Your task to perform on an android device: change the upload size in google photos Image 0: 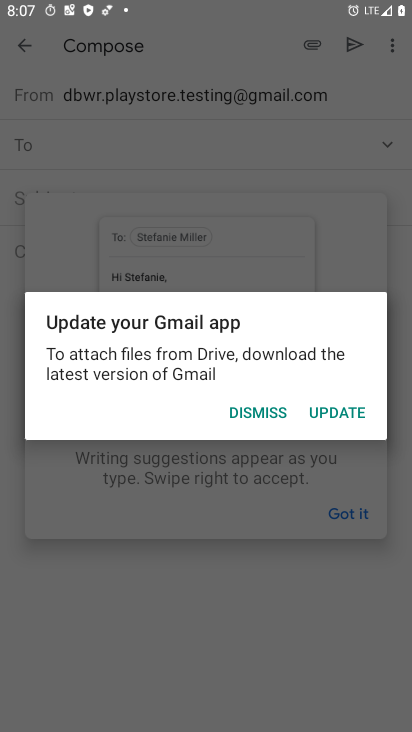
Step 0: click (280, 406)
Your task to perform on an android device: change the upload size in google photos Image 1: 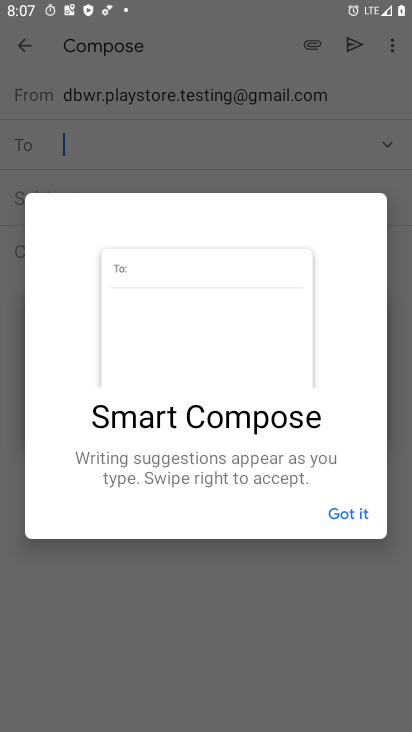
Step 1: press home button
Your task to perform on an android device: change the upload size in google photos Image 2: 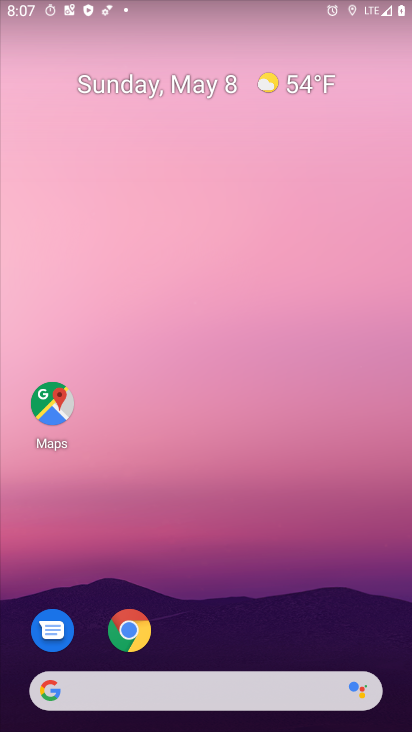
Step 2: drag from (239, 655) to (216, 39)
Your task to perform on an android device: change the upload size in google photos Image 3: 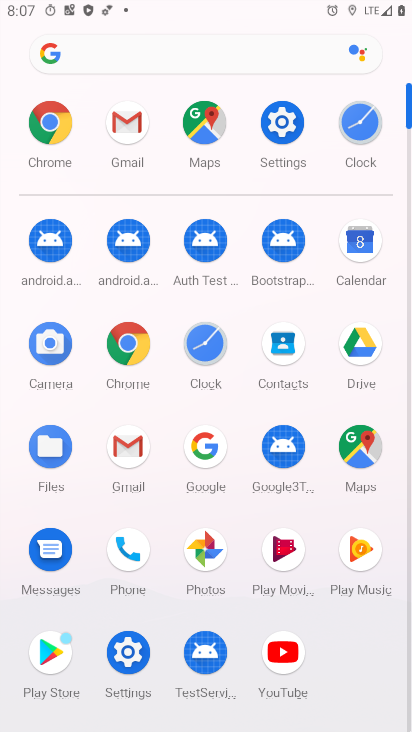
Step 3: click (190, 552)
Your task to perform on an android device: change the upload size in google photos Image 4: 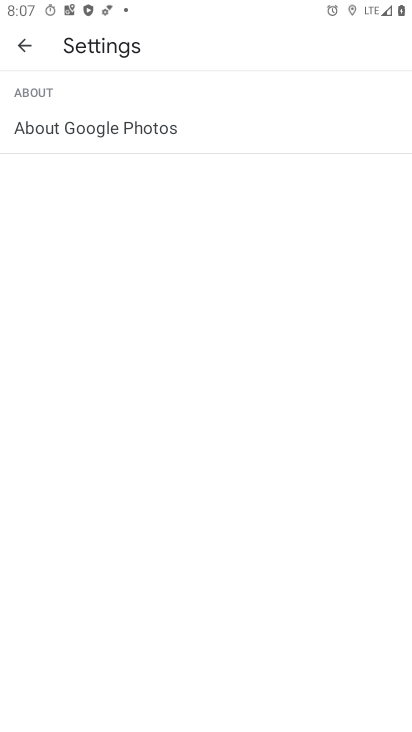
Step 4: click (27, 46)
Your task to perform on an android device: change the upload size in google photos Image 5: 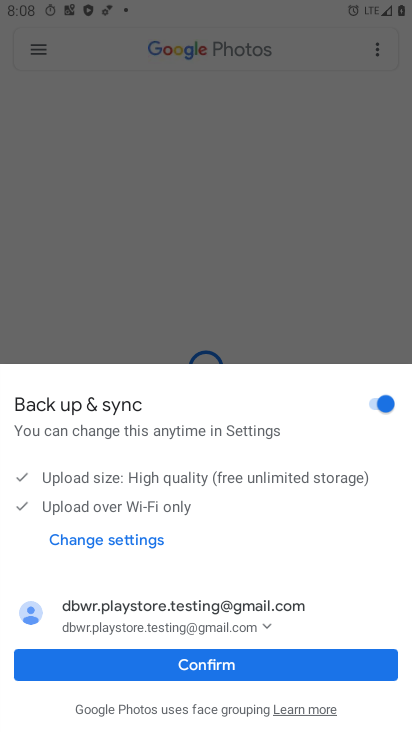
Step 5: click (233, 661)
Your task to perform on an android device: change the upload size in google photos Image 6: 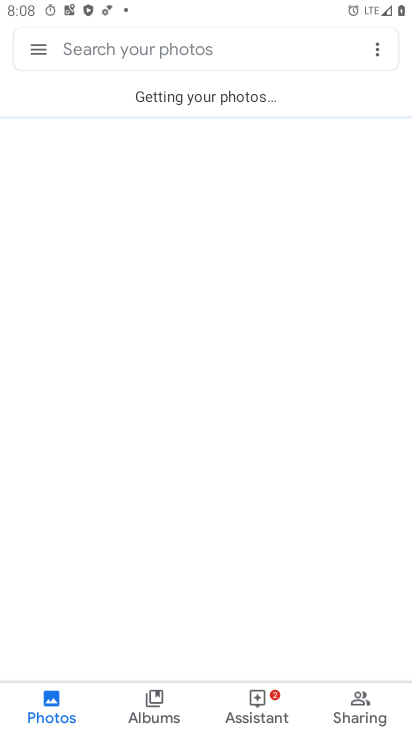
Step 6: click (39, 52)
Your task to perform on an android device: change the upload size in google photos Image 7: 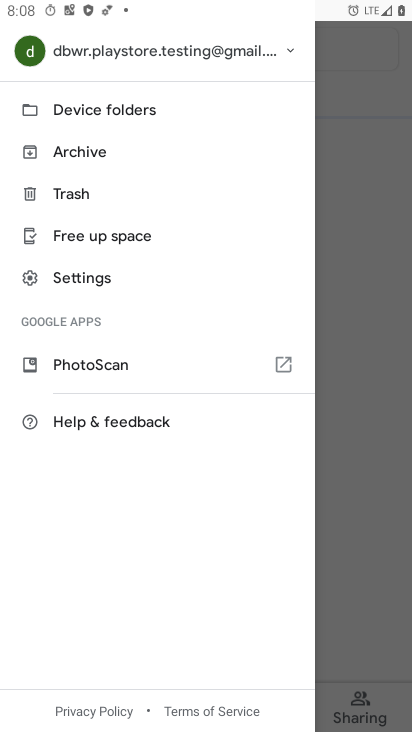
Step 7: click (78, 285)
Your task to perform on an android device: change the upload size in google photos Image 8: 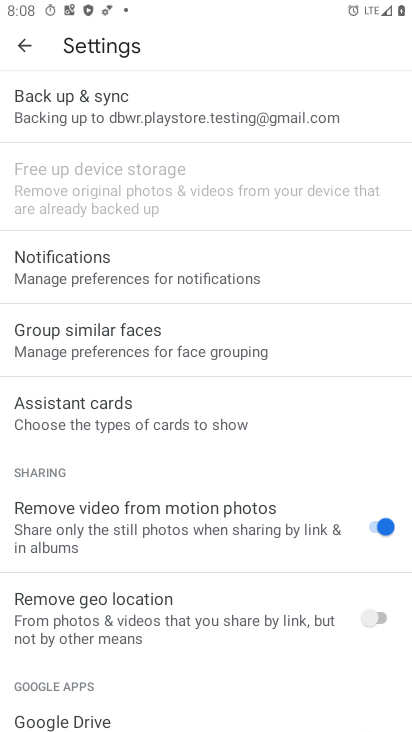
Step 8: drag from (124, 497) to (86, 247)
Your task to perform on an android device: change the upload size in google photos Image 9: 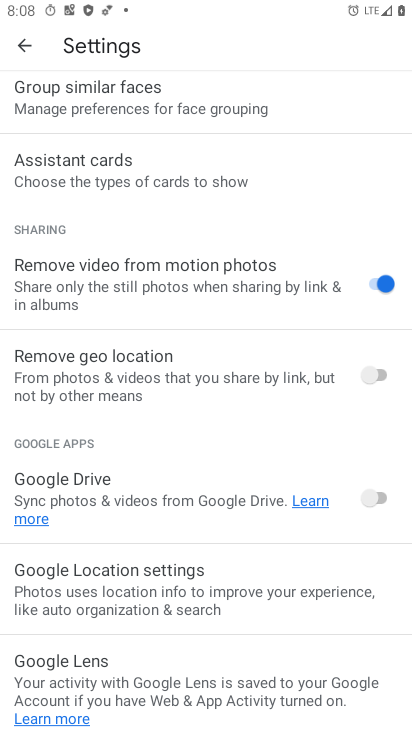
Step 9: drag from (109, 234) to (114, 590)
Your task to perform on an android device: change the upload size in google photos Image 10: 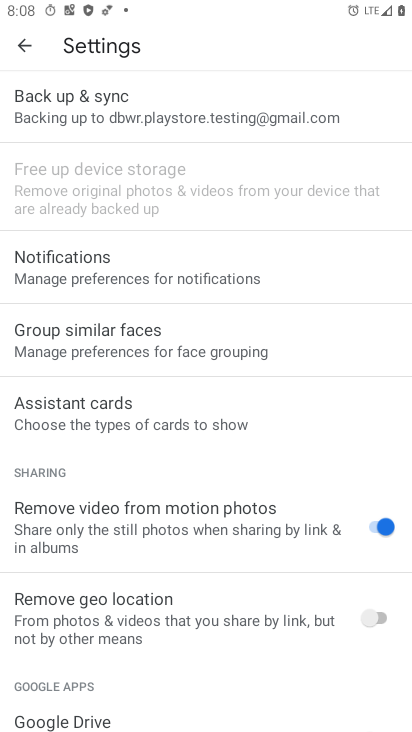
Step 10: click (109, 125)
Your task to perform on an android device: change the upload size in google photos Image 11: 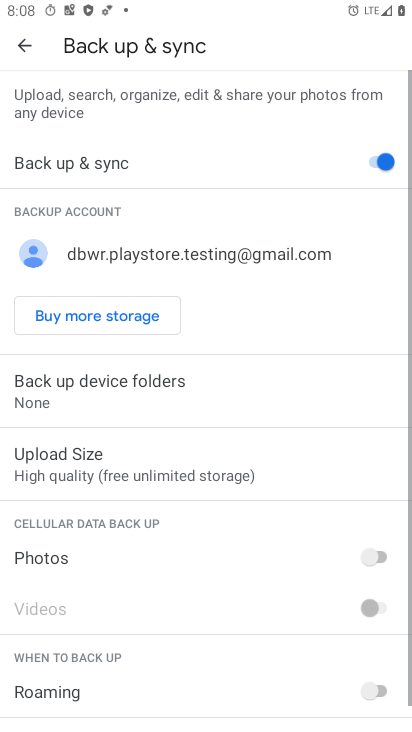
Step 11: click (143, 455)
Your task to perform on an android device: change the upload size in google photos Image 12: 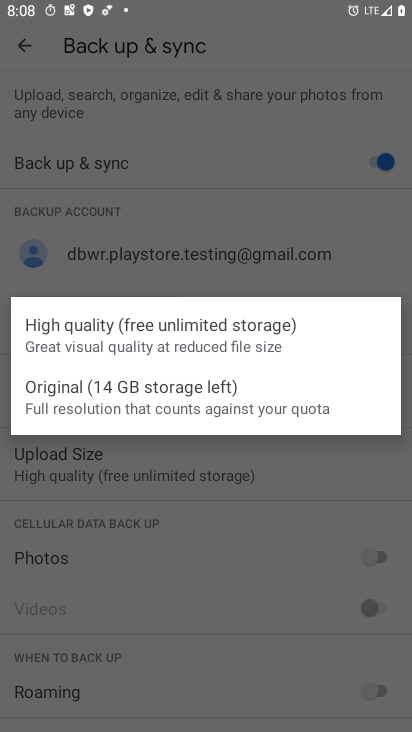
Step 12: click (114, 404)
Your task to perform on an android device: change the upload size in google photos Image 13: 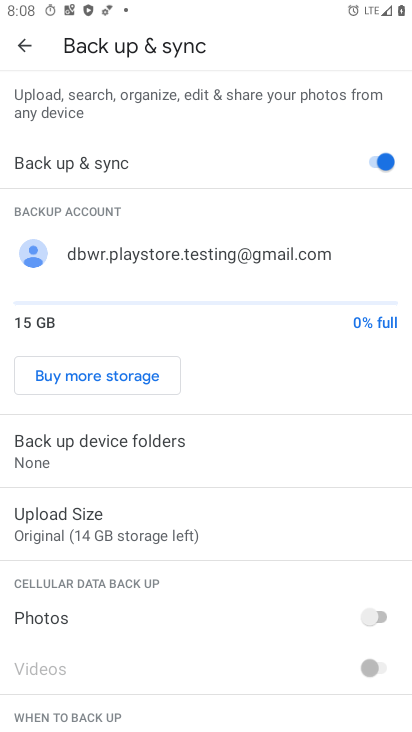
Step 13: task complete